Your task to perform on an android device: allow notifications from all sites in the chrome app Image 0: 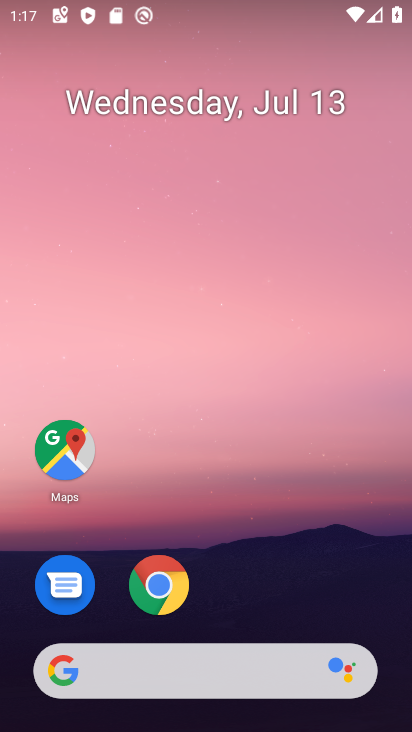
Step 0: click (160, 581)
Your task to perform on an android device: allow notifications from all sites in the chrome app Image 1: 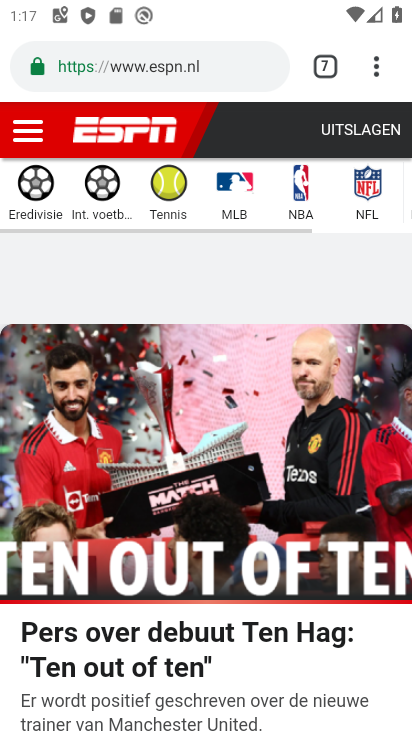
Step 1: drag from (372, 62) to (200, 571)
Your task to perform on an android device: allow notifications from all sites in the chrome app Image 2: 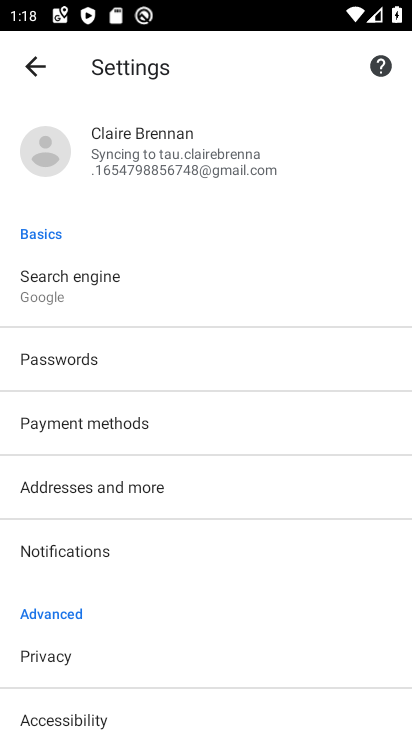
Step 2: click (90, 555)
Your task to perform on an android device: allow notifications from all sites in the chrome app Image 3: 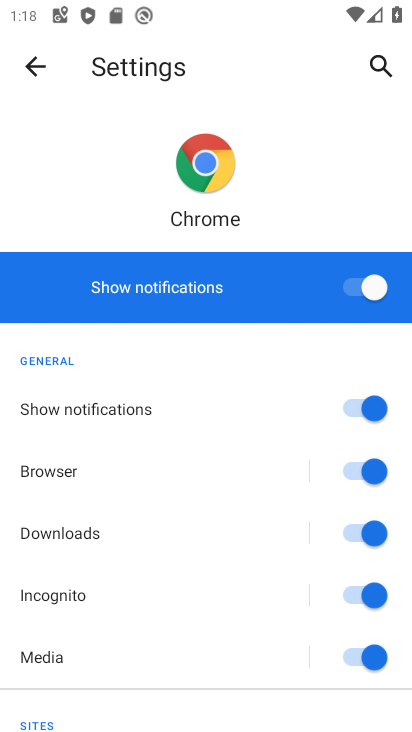
Step 3: drag from (127, 545) to (263, 88)
Your task to perform on an android device: allow notifications from all sites in the chrome app Image 4: 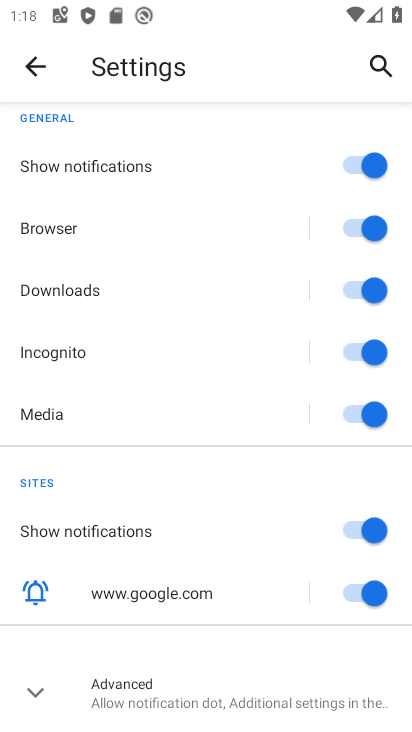
Step 4: click (32, 53)
Your task to perform on an android device: allow notifications from all sites in the chrome app Image 5: 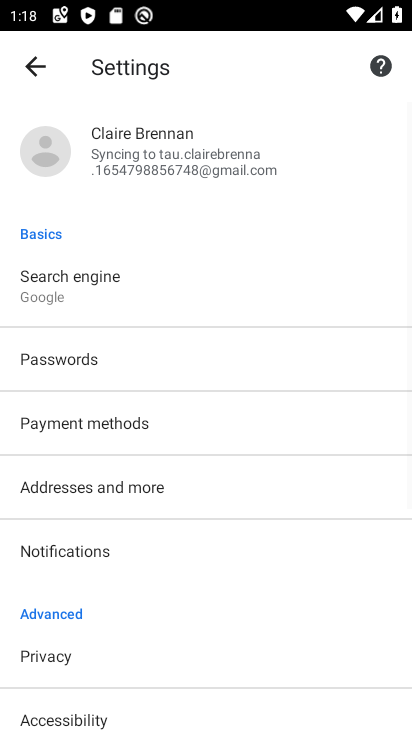
Step 5: drag from (111, 635) to (264, 207)
Your task to perform on an android device: allow notifications from all sites in the chrome app Image 6: 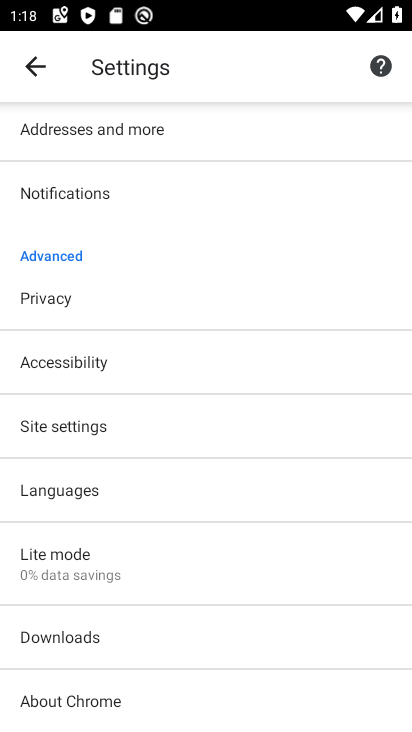
Step 6: click (85, 429)
Your task to perform on an android device: allow notifications from all sites in the chrome app Image 7: 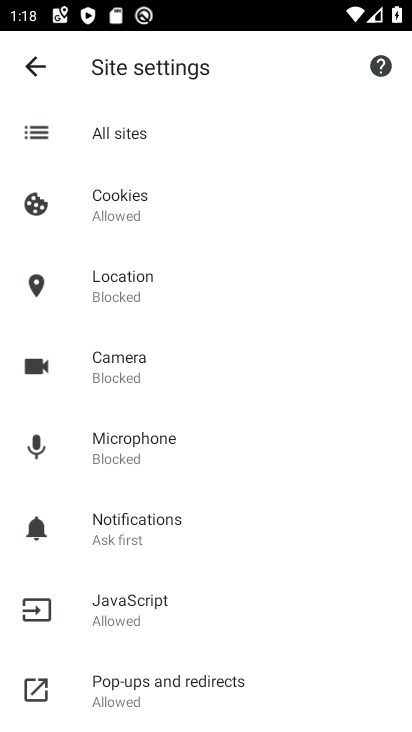
Step 7: click (140, 527)
Your task to perform on an android device: allow notifications from all sites in the chrome app Image 8: 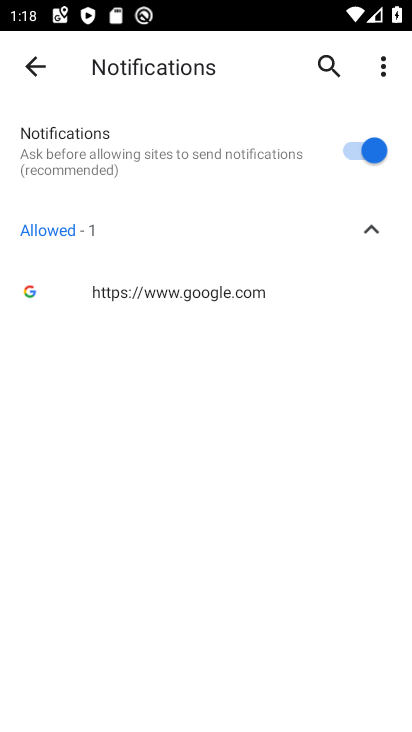
Step 8: task complete